Your task to perform on an android device: Open the calendar and show me this week's events? Image 0: 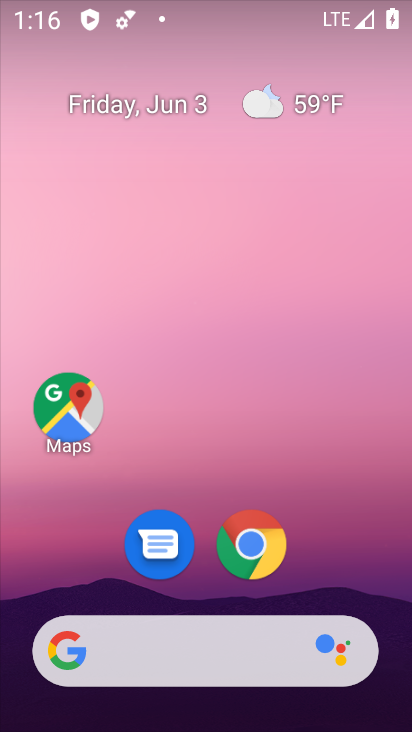
Step 0: drag from (219, 569) to (156, 5)
Your task to perform on an android device: Open the calendar and show me this week's events? Image 1: 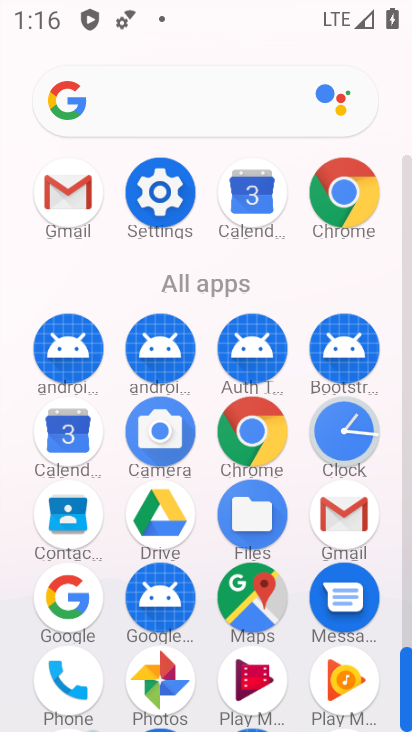
Step 1: click (56, 439)
Your task to perform on an android device: Open the calendar and show me this week's events? Image 2: 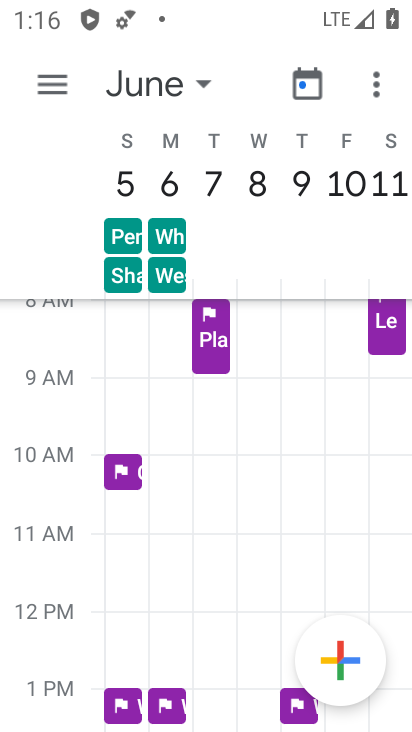
Step 2: task complete